Your task to perform on an android device: create a new album in the google photos Image 0: 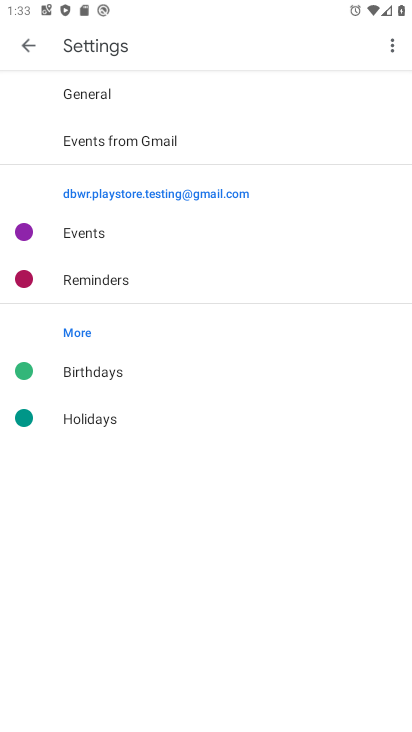
Step 0: press home button
Your task to perform on an android device: create a new album in the google photos Image 1: 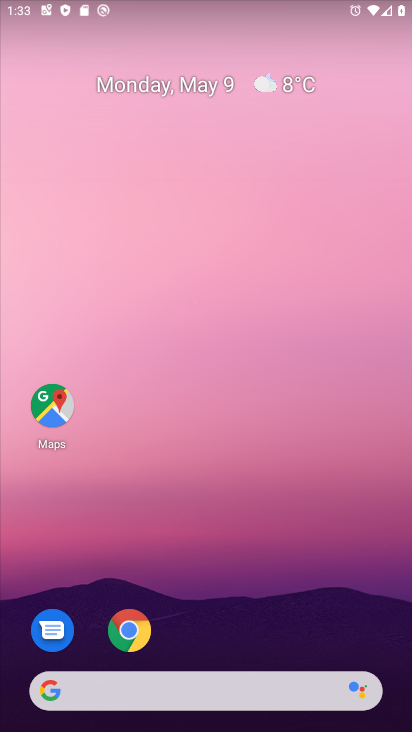
Step 1: drag from (315, 596) to (293, 68)
Your task to perform on an android device: create a new album in the google photos Image 2: 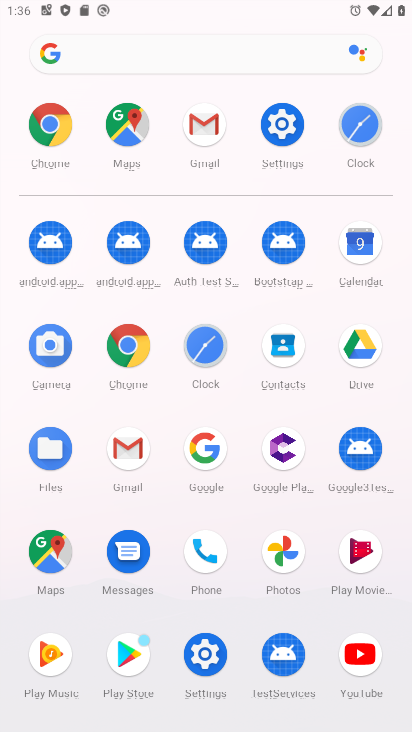
Step 2: click (291, 543)
Your task to perform on an android device: create a new album in the google photos Image 3: 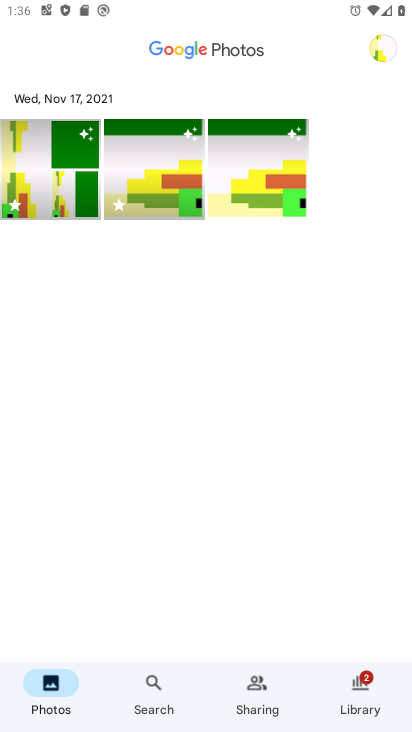
Step 3: click (67, 169)
Your task to perform on an android device: create a new album in the google photos Image 4: 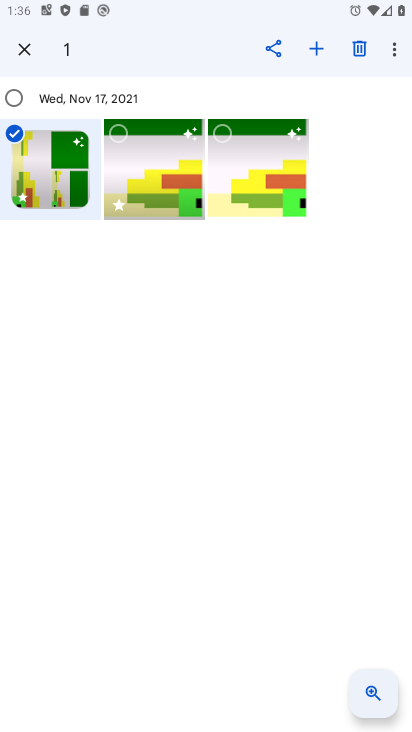
Step 4: click (325, 39)
Your task to perform on an android device: create a new album in the google photos Image 5: 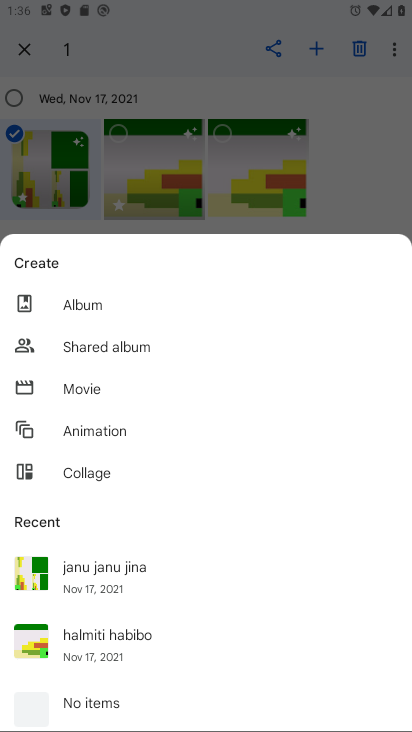
Step 5: click (151, 304)
Your task to perform on an android device: create a new album in the google photos Image 6: 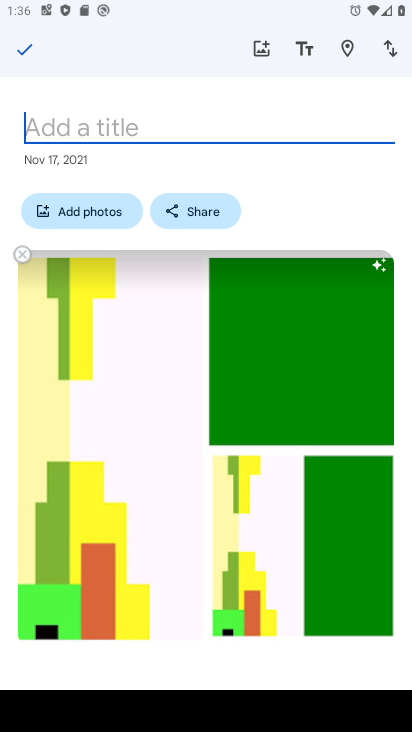
Step 6: type "mila"
Your task to perform on an android device: create a new album in the google photos Image 7: 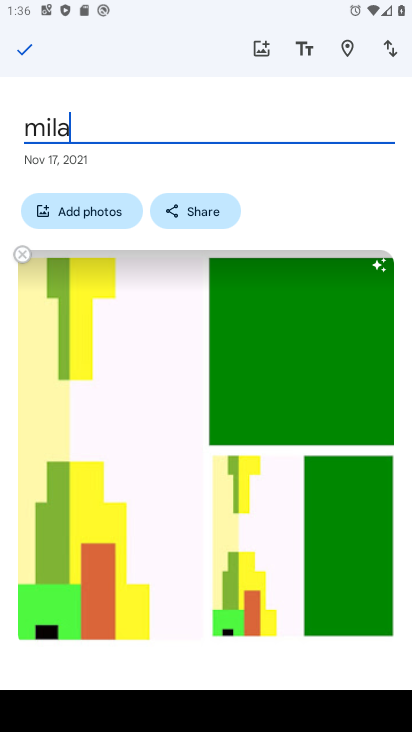
Step 7: click (26, 38)
Your task to perform on an android device: create a new album in the google photos Image 8: 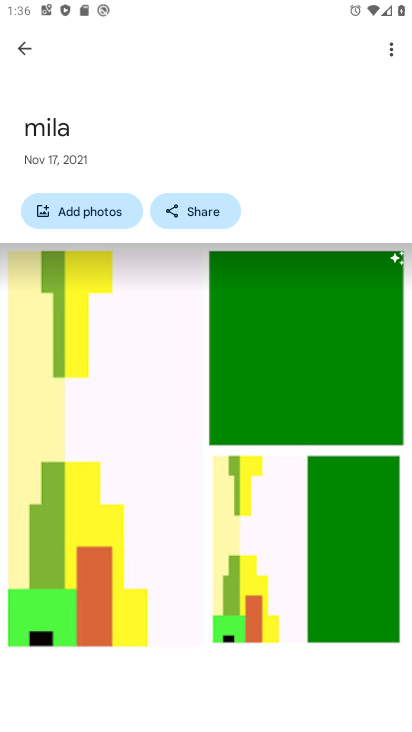
Step 8: task complete